Your task to perform on an android device: Show me popular videos on Youtube Image 0: 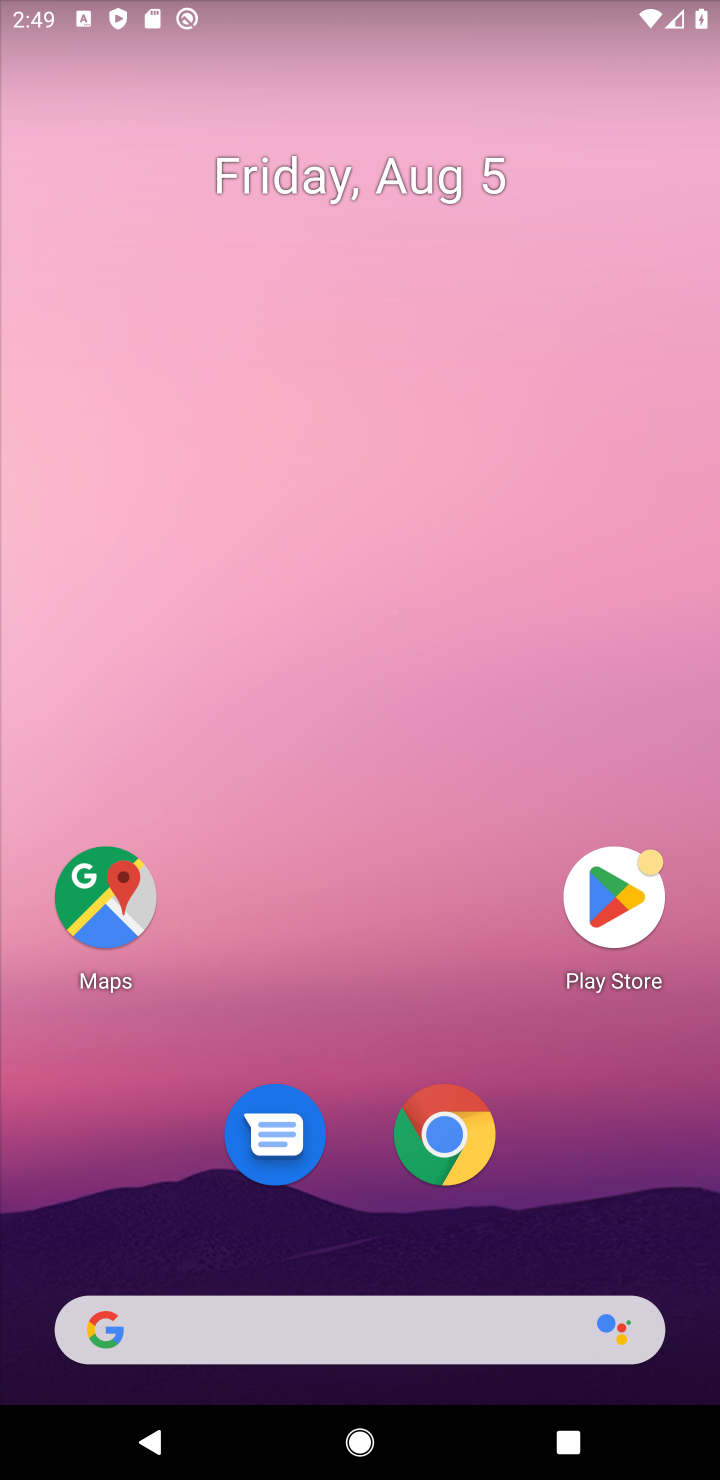
Step 0: click (345, 238)
Your task to perform on an android device: Show me popular videos on Youtube Image 1: 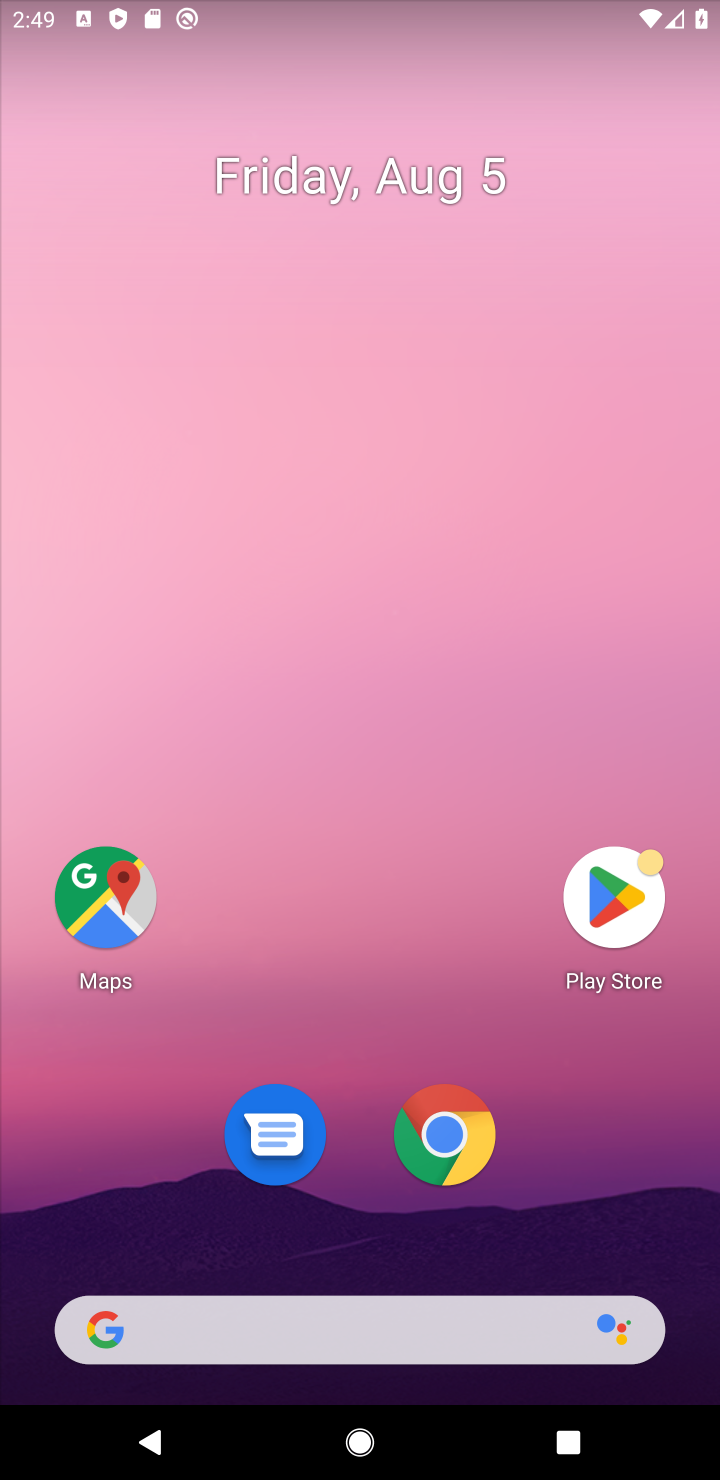
Step 1: drag from (387, 1011) to (383, 138)
Your task to perform on an android device: Show me popular videos on Youtube Image 2: 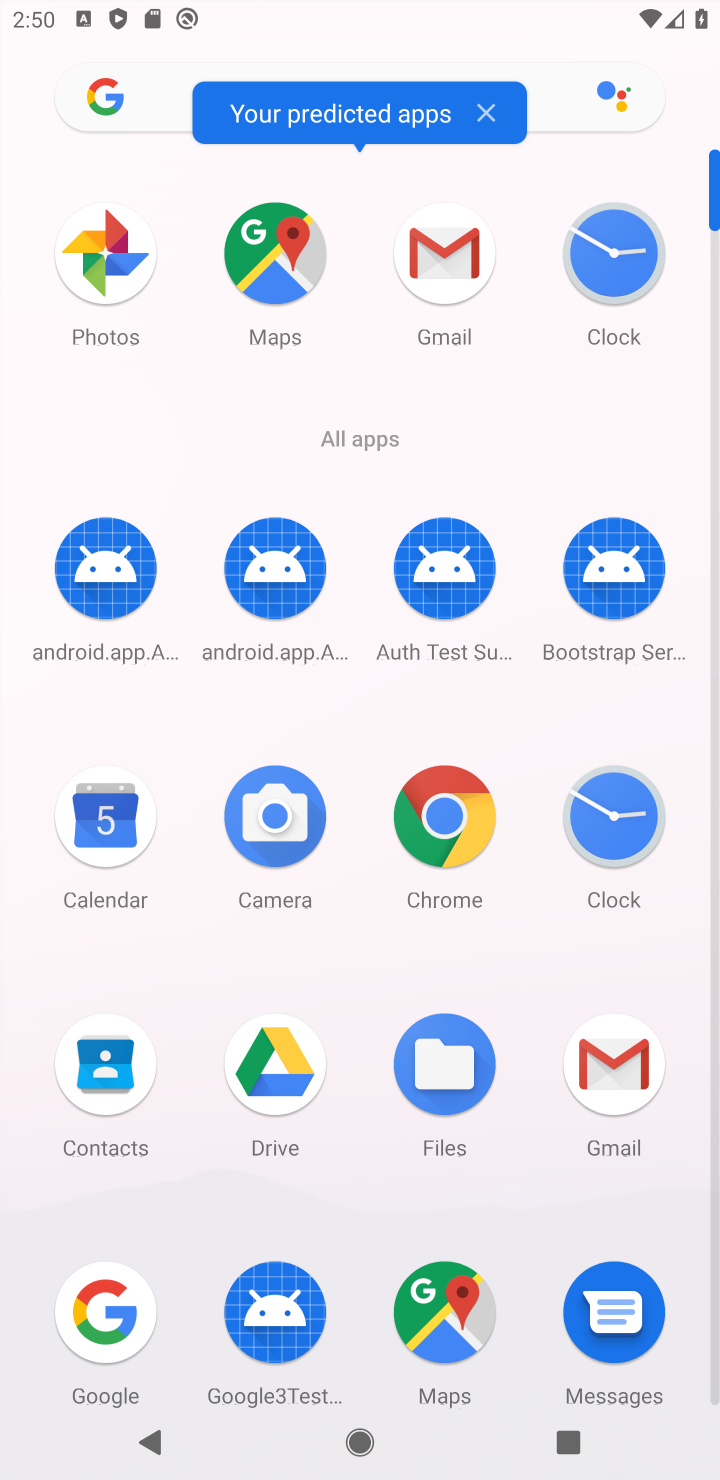
Step 2: drag from (344, 936) to (393, 274)
Your task to perform on an android device: Show me popular videos on Youtube Image 3: 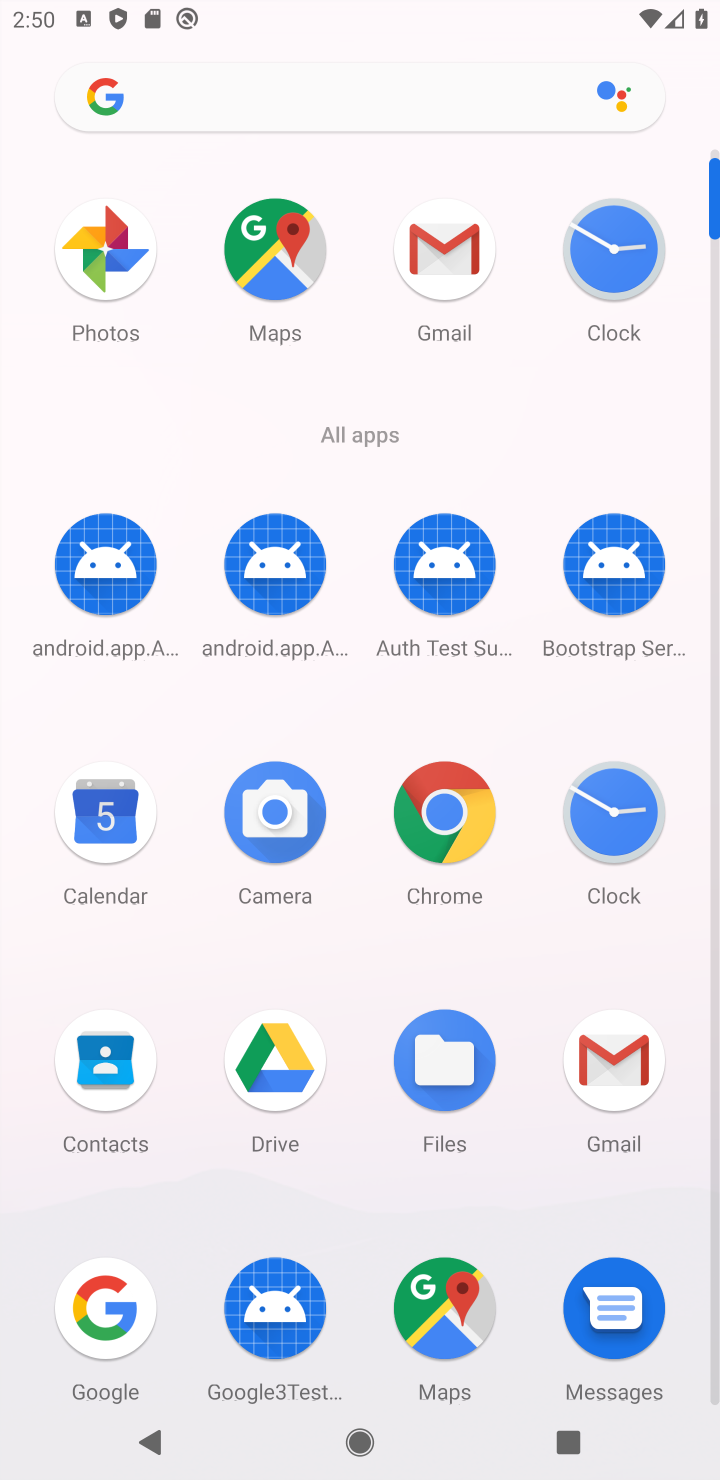
Step 3: drag from (406, 1161) to (333, 463)
Your task to perform on an android device: Show me popular videos on Youtube Image 4: 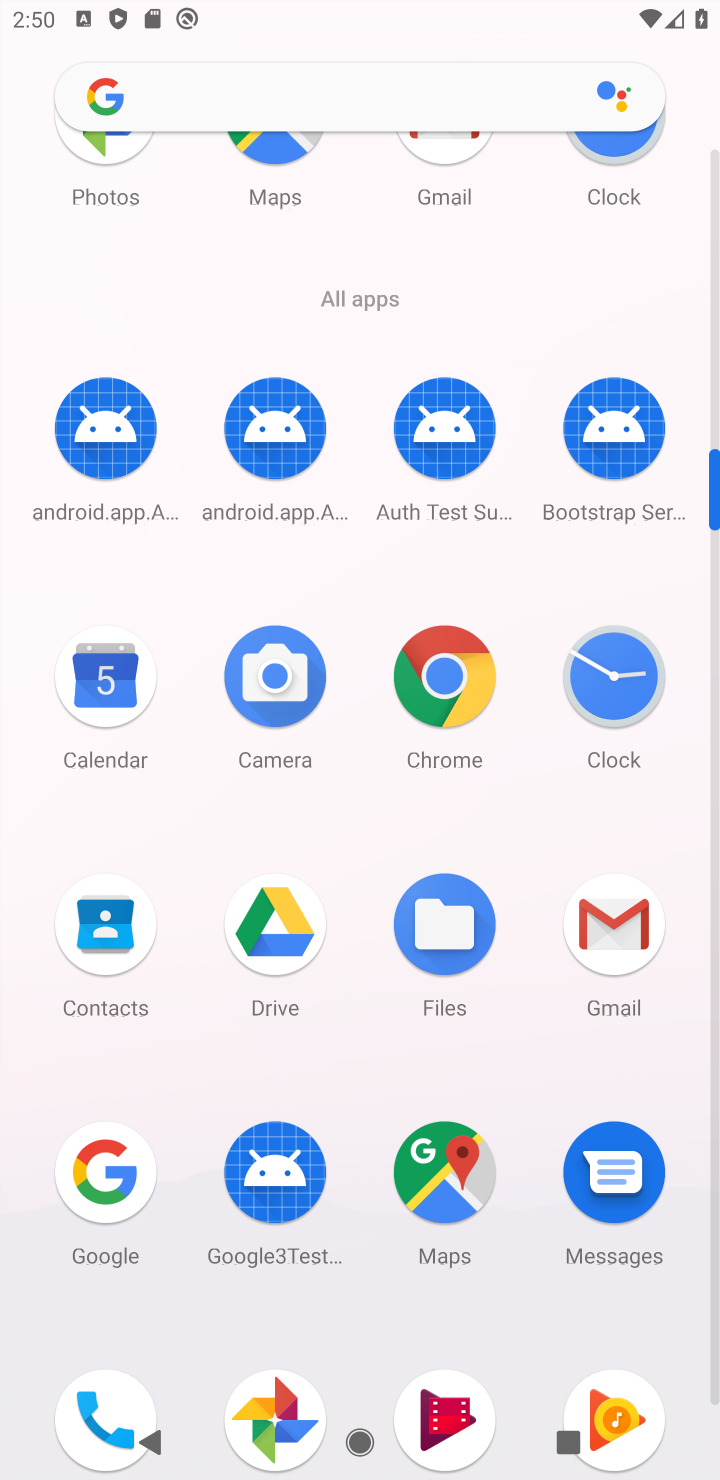
Step 4: drag from (343, 1290) to (346, 600)
Your task to perform on an android device: Show me popular videos on Youtube Image 5: 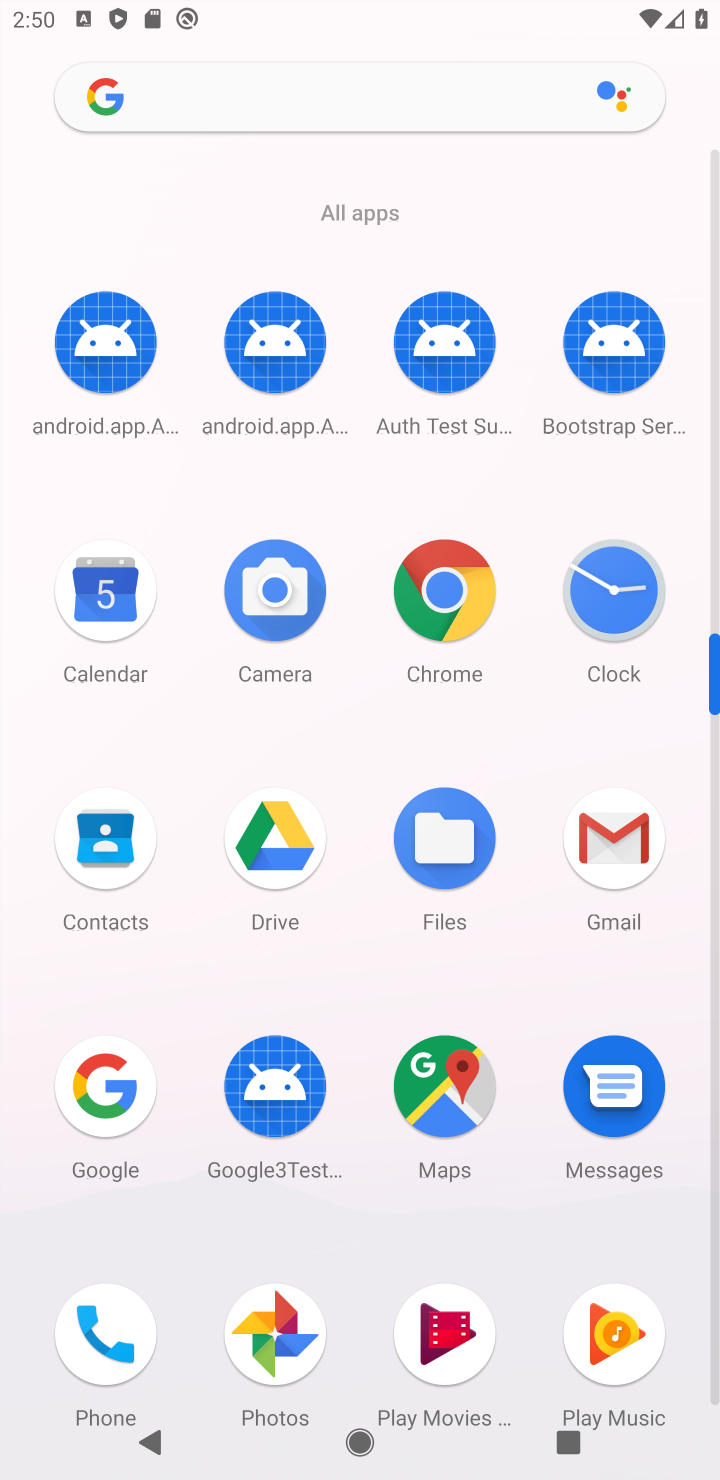
Step 5: drag from (342, 897) to (325, 554)
Your task to perform on an android device: Show me popular videos on Youtube Image 6: 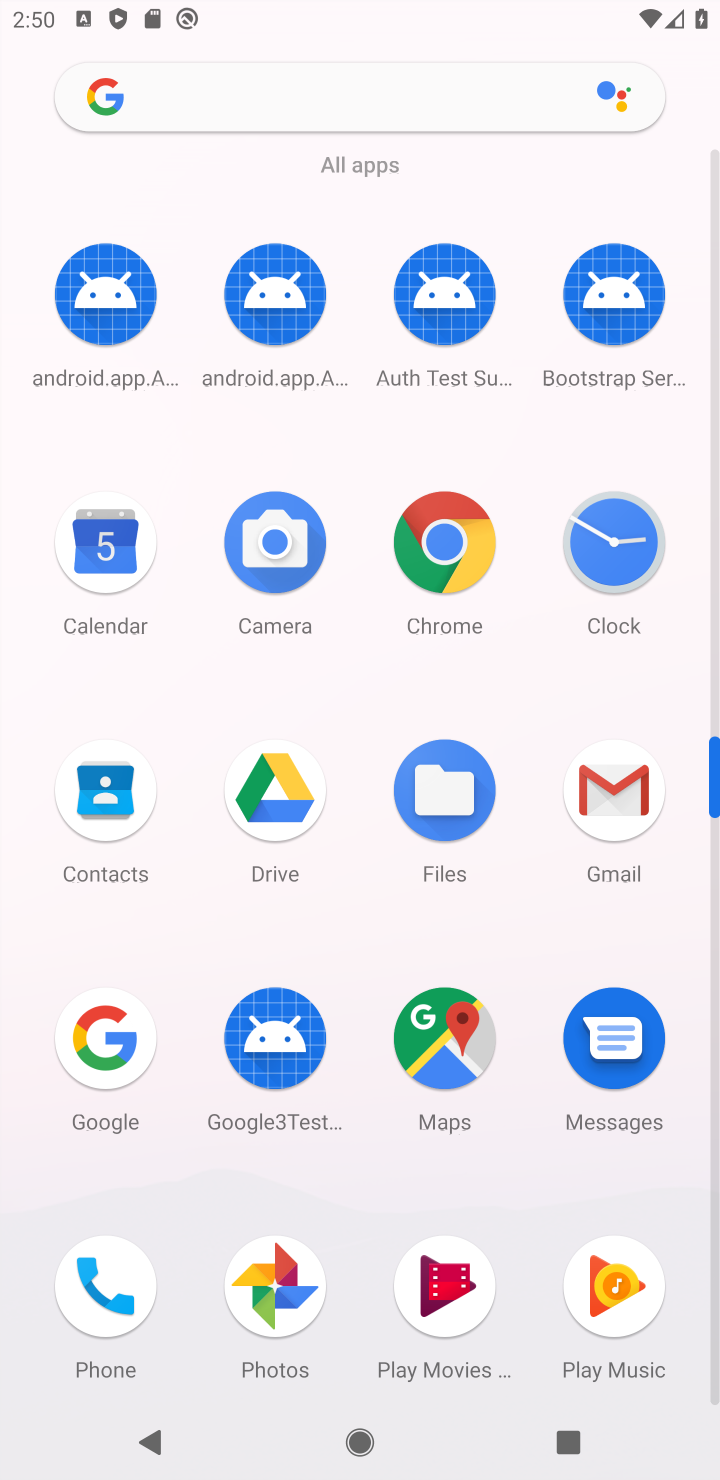
Step 6: drag from (516, 1178) to (471, 389)
Your task to perform on an android device: Show me popular videos on Youtube Image 7: 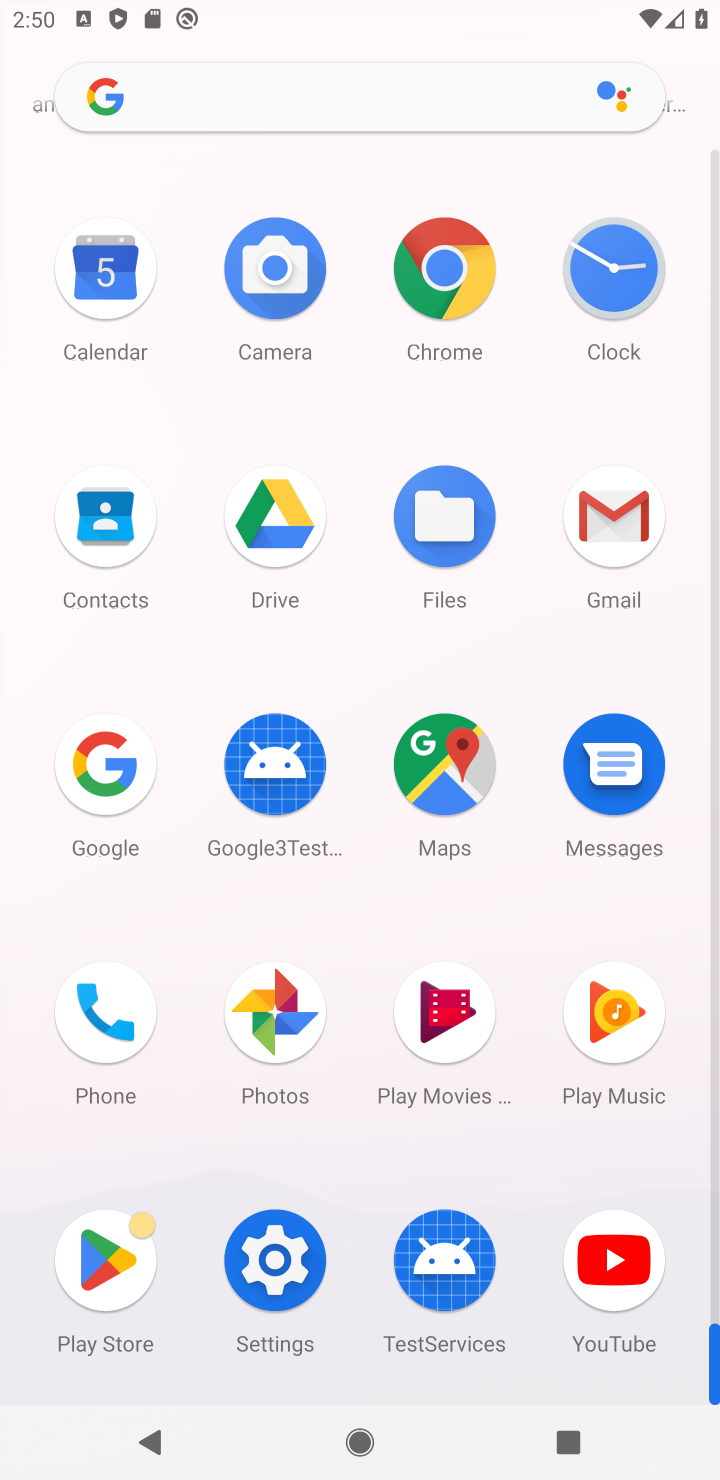
Step 7: click (626, 1279)
Your task to perform on an android device: Show me popular videos on Youtube Image 8: 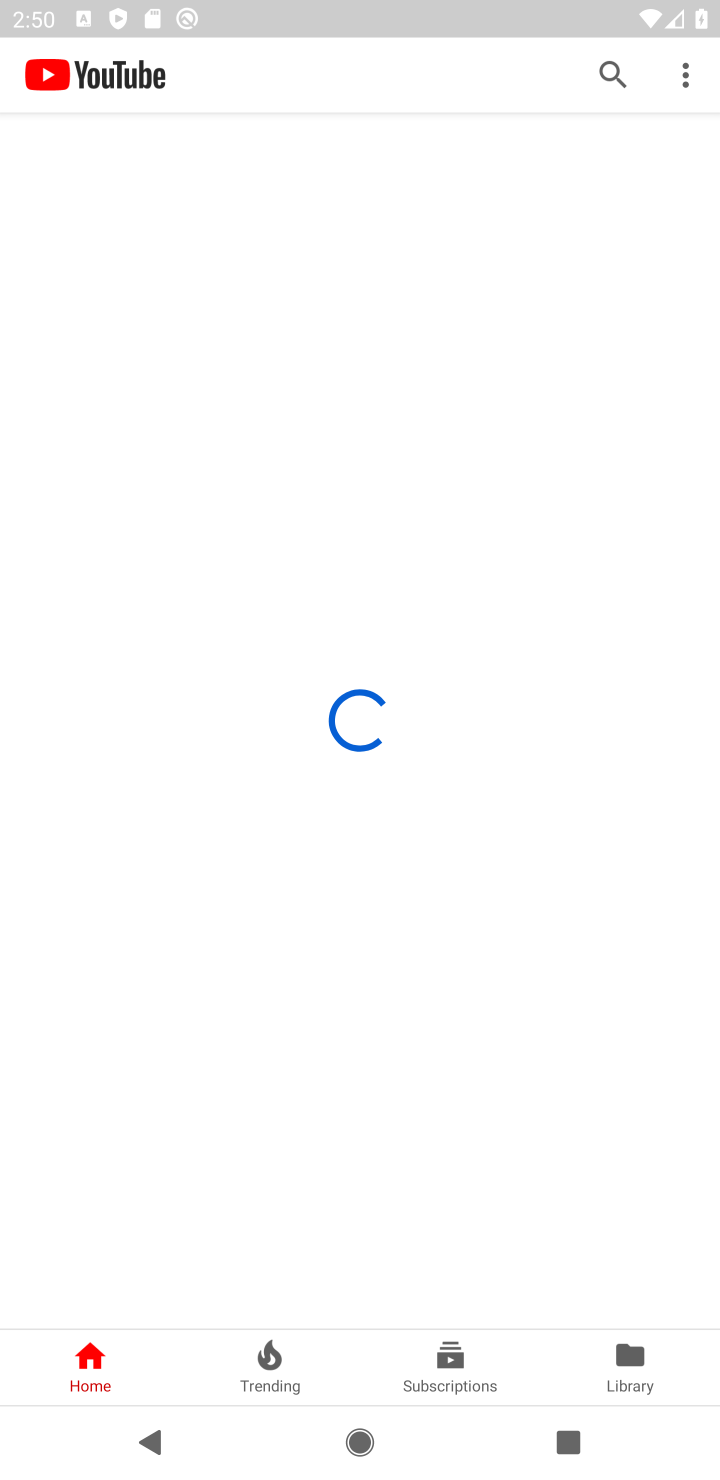
Step 8: task complete